Your task to perform on an android device: manage bookmarks in the chrome app Image 0: 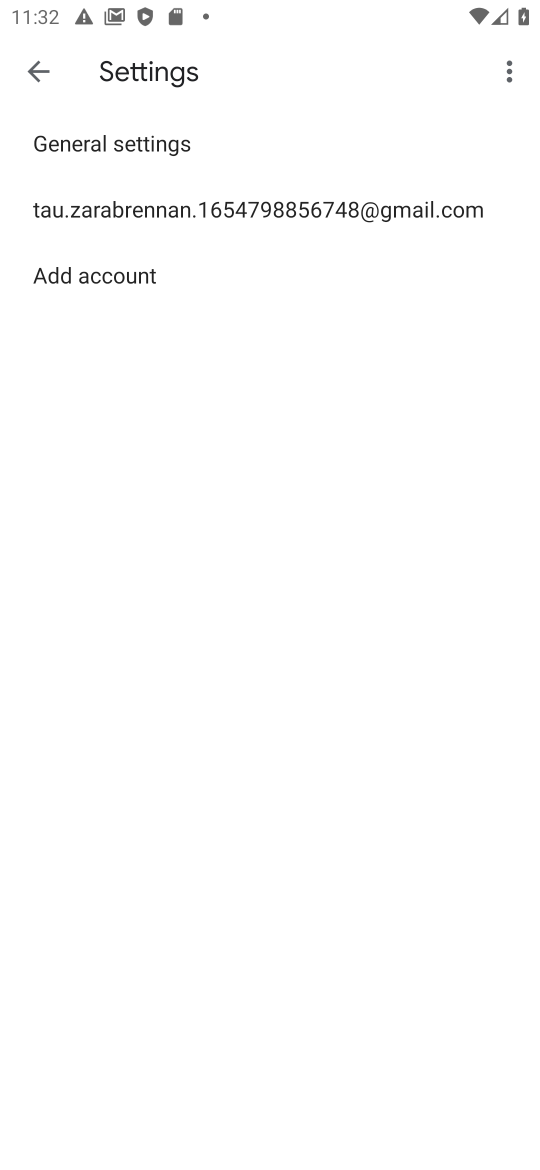
Step 0: press home button
Your task to perform on an android device: manage bookmarks in the chrome app Image 1: 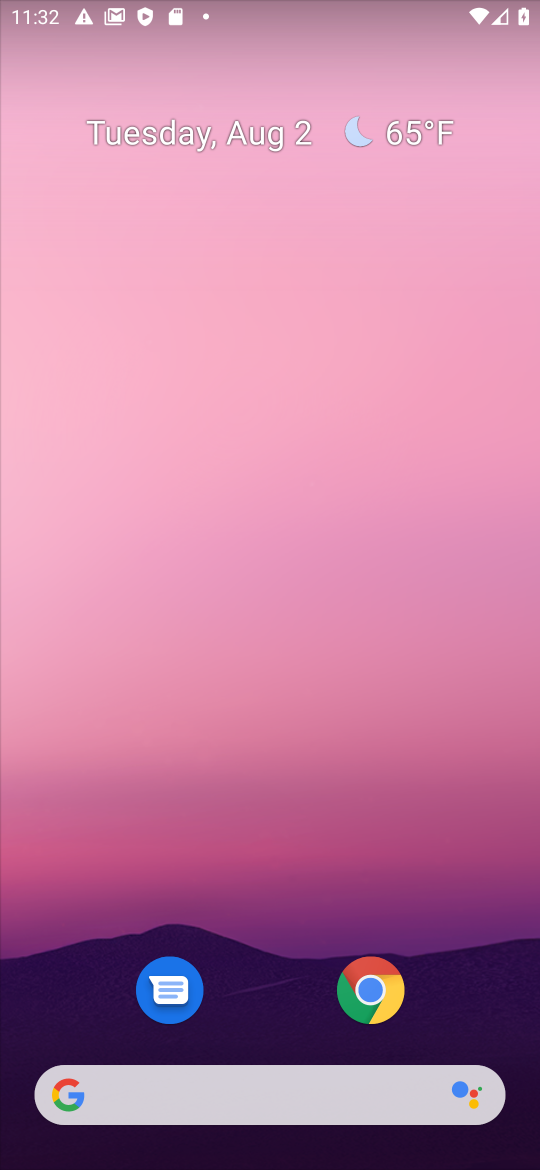
Step 1: drag from (266, 1024) to (342, 289)
Your task to perform on an android device: manage bookmarks in the chrome app Image 2: 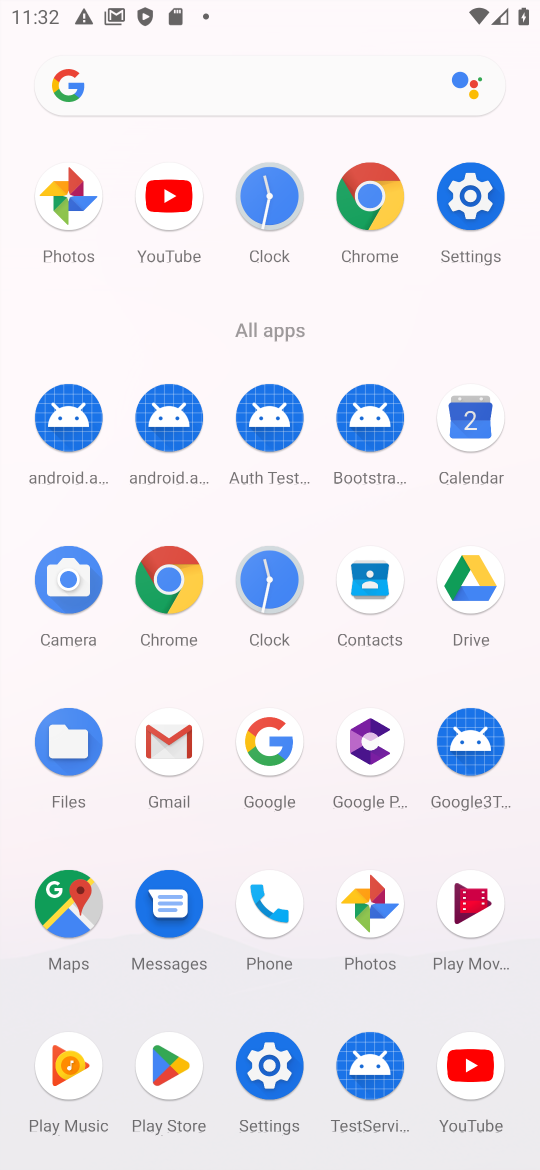
Step 2: click (154, 598)
Your task to perform on an android device: manage bookmarks in the chrome app Image 3: 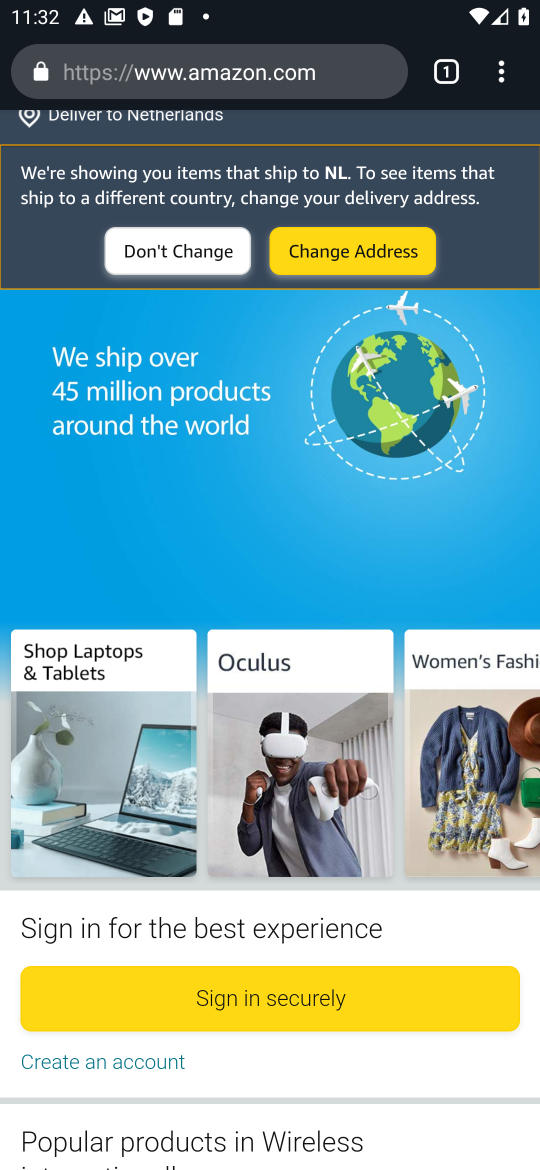
Step 3: click (505, 77)
Your task to perform on an android device: manage bookmarks in the chrome app Image 4: 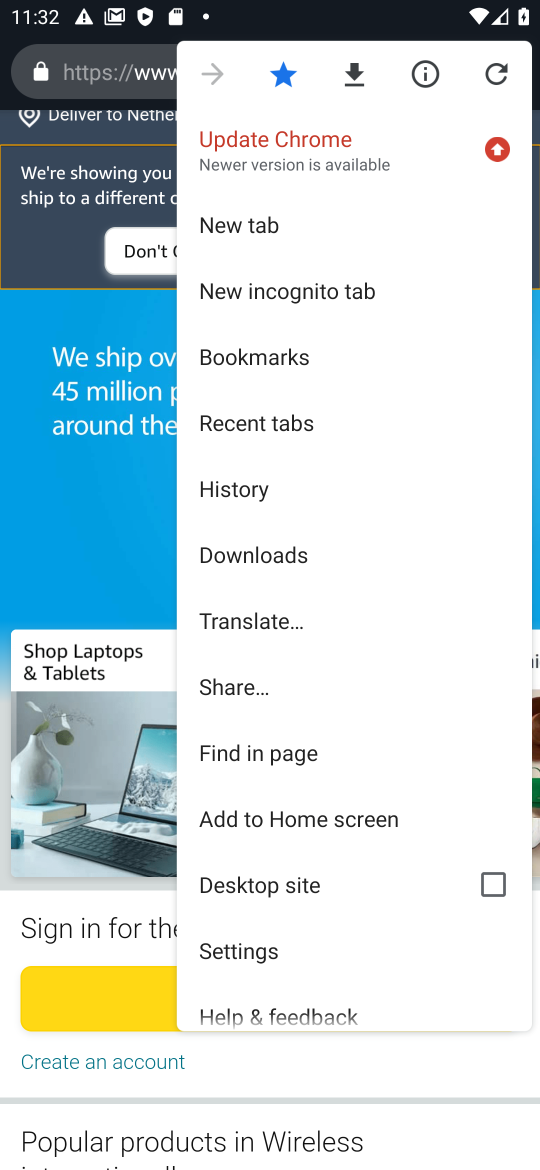
Step 4: click (276, 348)
Your task to perform on an android device: manage bookmarks in the chrome app Image 5: 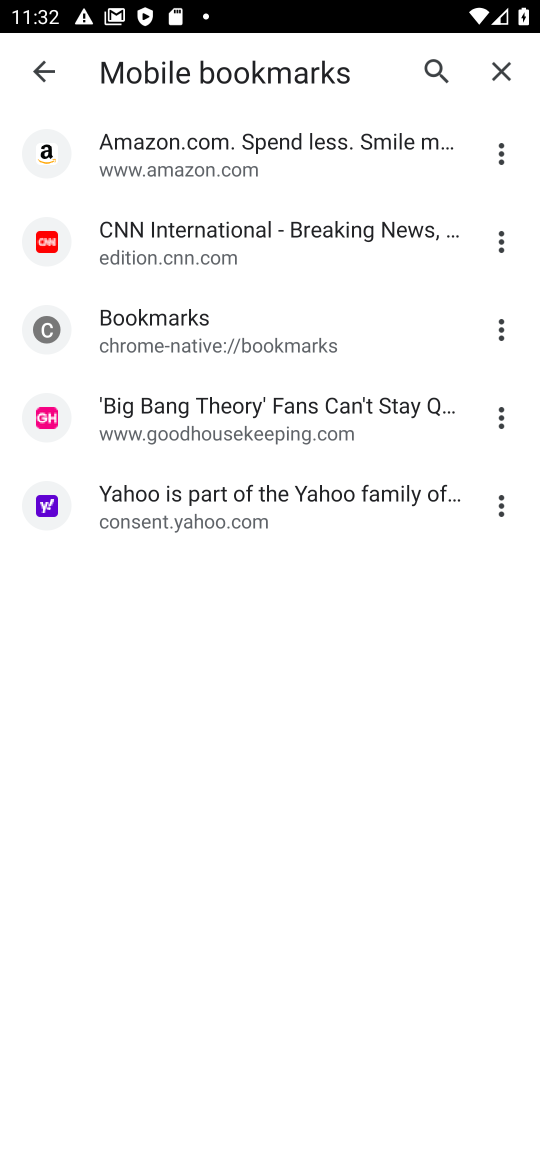
Step 5: click (505, 157)
Your task to perform on an android device: manage bookmarks in the chrome app Image 6: 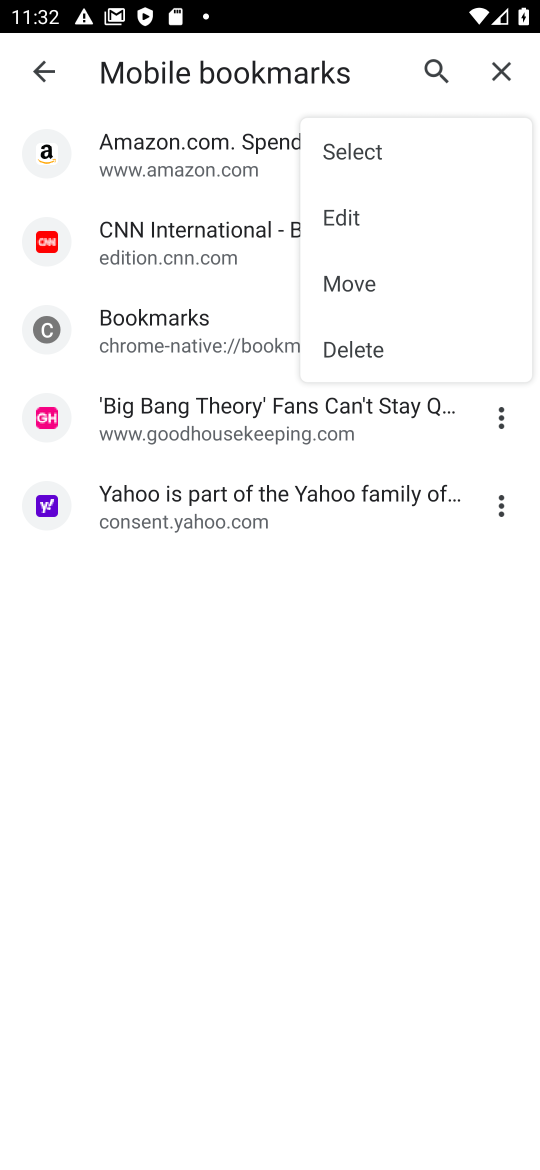
Step 6: click (370, 141)
Your task to perform on an android device: manage bookmarks in the chrome app Image 7: 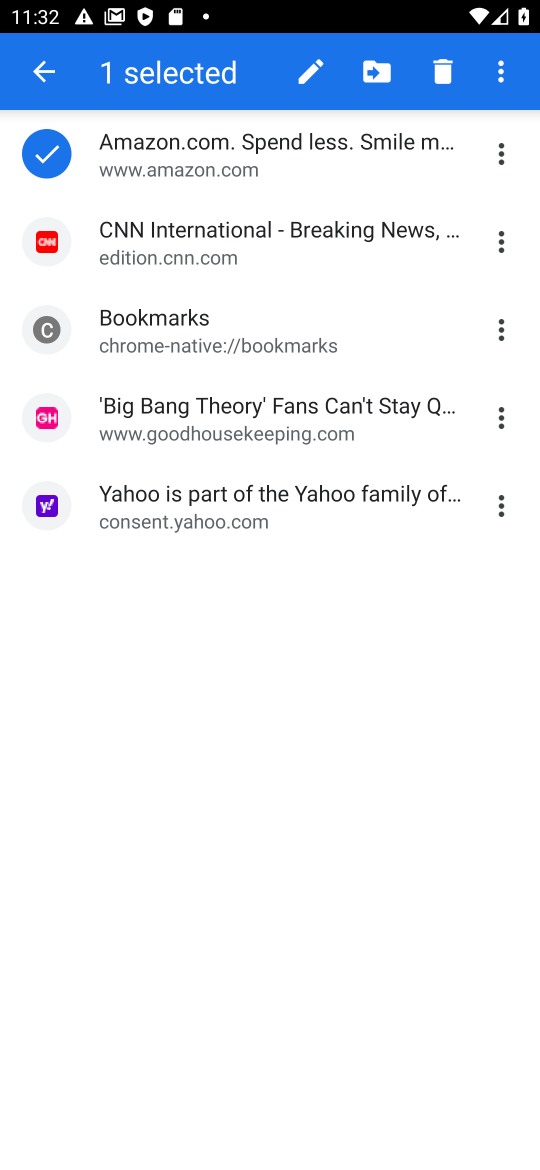
Step 7: click (315, 229)
Your task to perform on an android device: manage bookmarks in the chrome app Image 8: 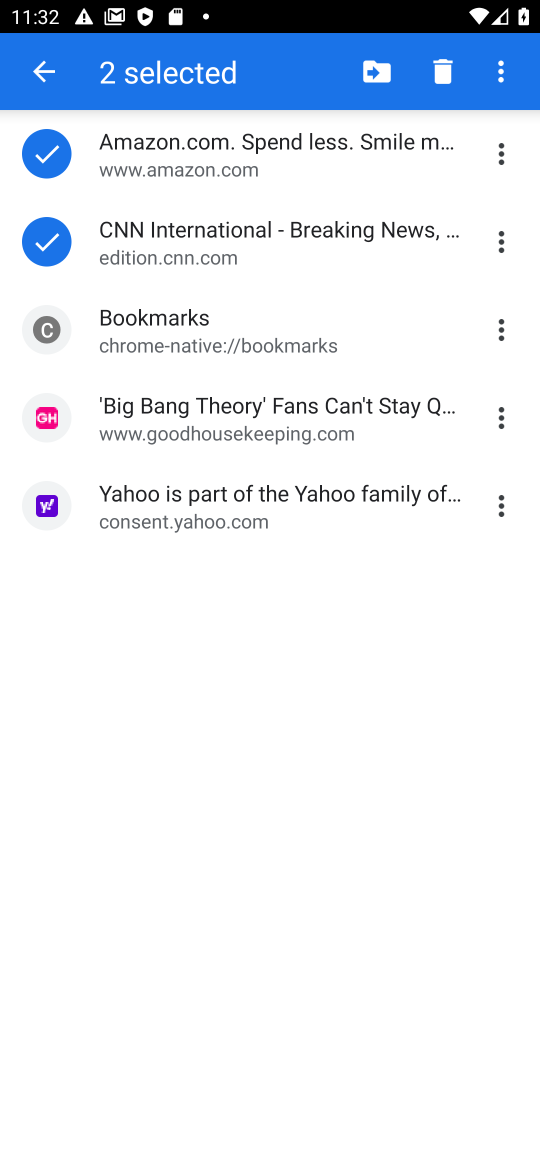
Step 8: click (216, 419)
Your task to perform on an android device: manage bookmarks in the chrome app Image 9: 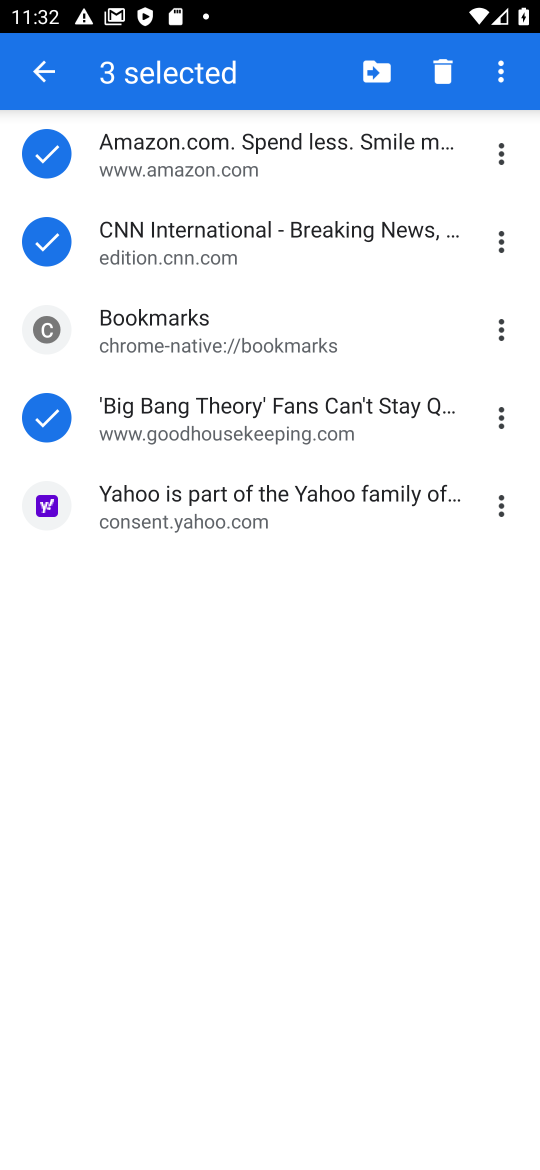
Step 9: click (195, 519)
Your task to perform on an android device: manage bookmarks in the chrome app Image 10: 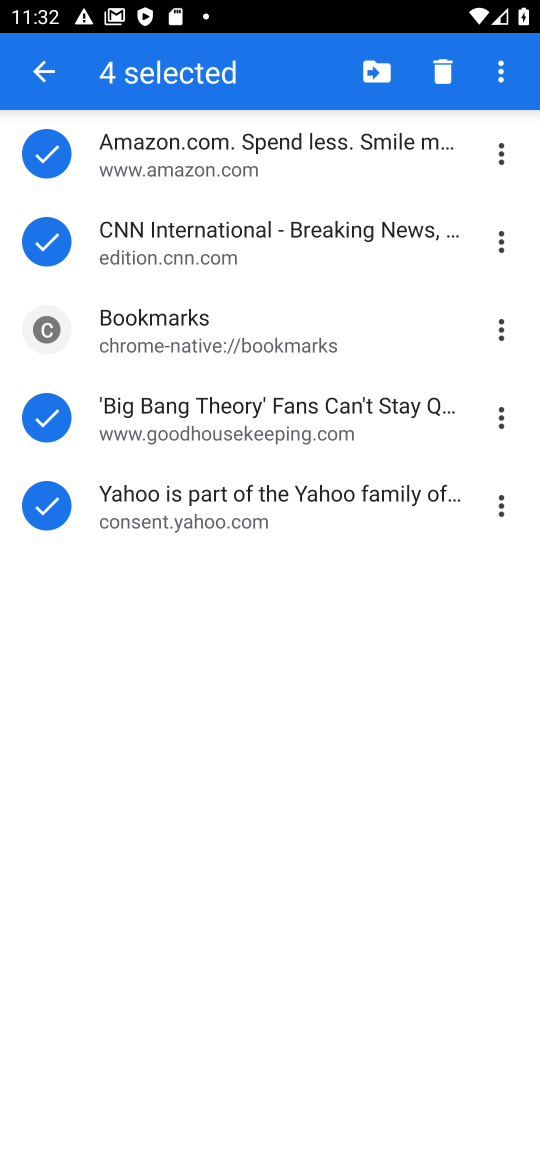
Step 10: click (372, 63)
Your task to perform on an android device: manage bookmarks in the chrome app Image 11: 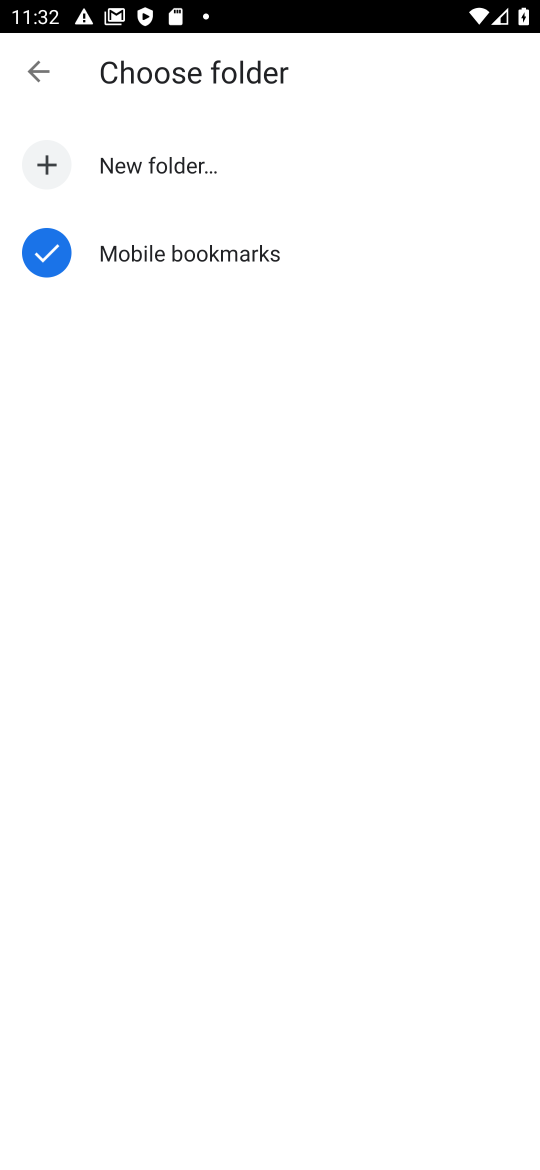
Step 11: click (176, 170)
Your task to perform on an android device: manage bookmarks in the chrome app Image 12: 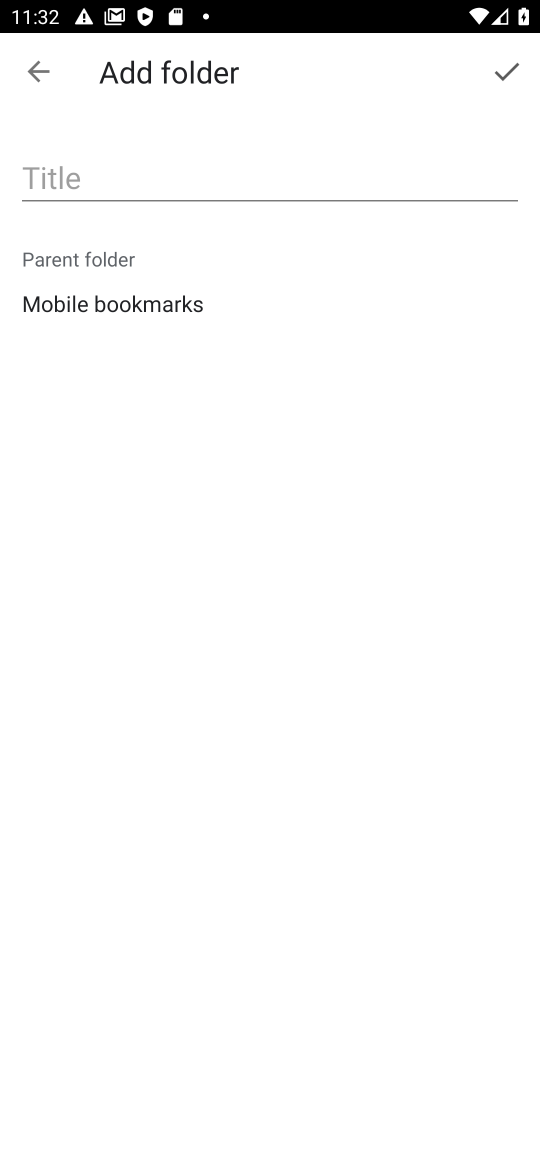
Step 12: click (229, 183)
Your task to perform on an android device: manage bookmarks in the chrome app Image 13: 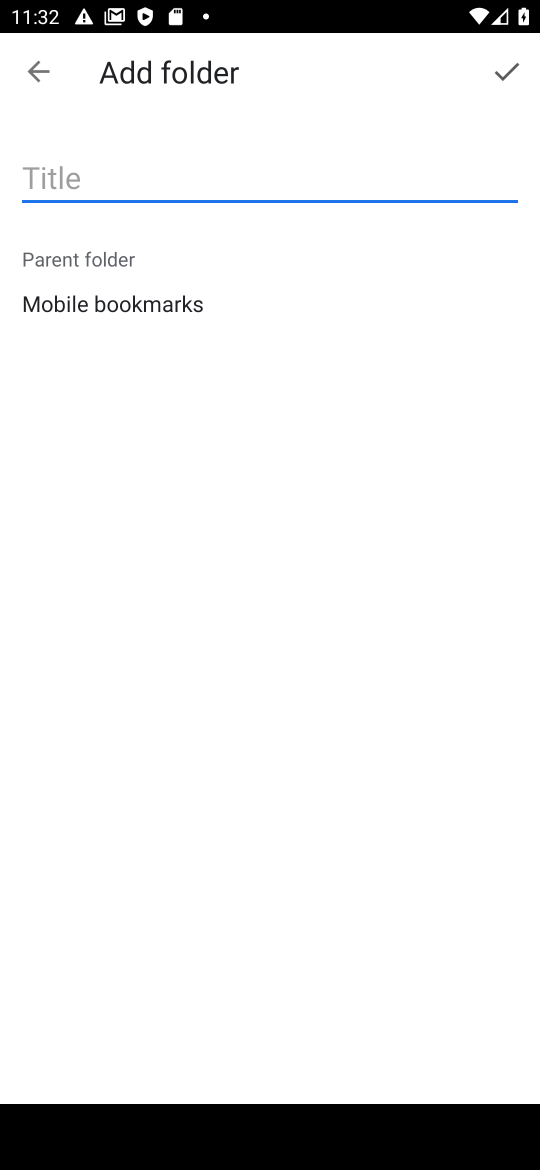
Step 13: type "mook"
Your task to perform on an android device: manage bookmarks in the chrome app Image 14: 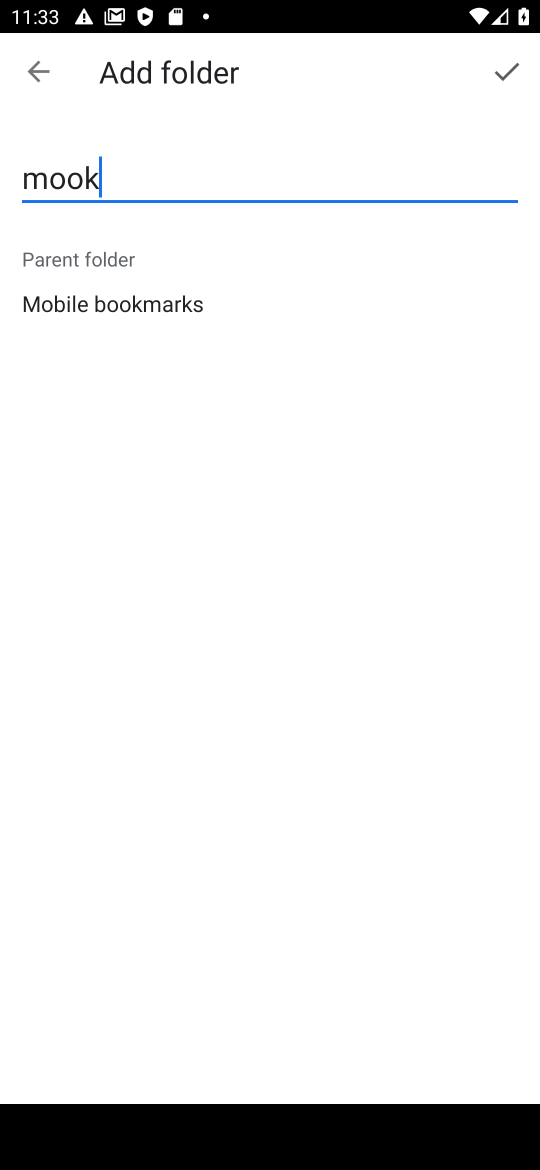
Step 14: click (507, 65)
Your task to perform on an android device: manage bookmarks in the chrome app Image 15: 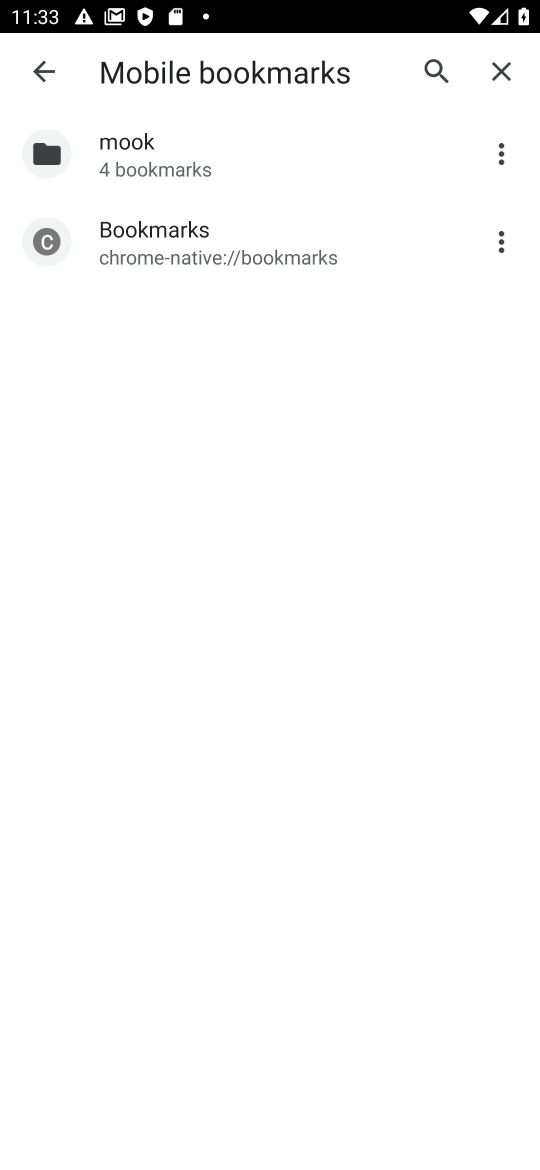
Step 15: task complete